Your task to perform on an android device: turn on the 12-hour format for clock Image 0: 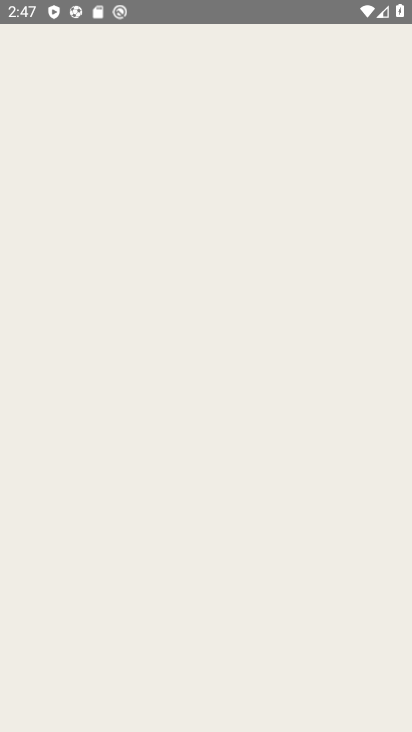
Step 0: click (297, 78)
Your task to perform on an android device: turn on the 12-hour format for clock Image 1: 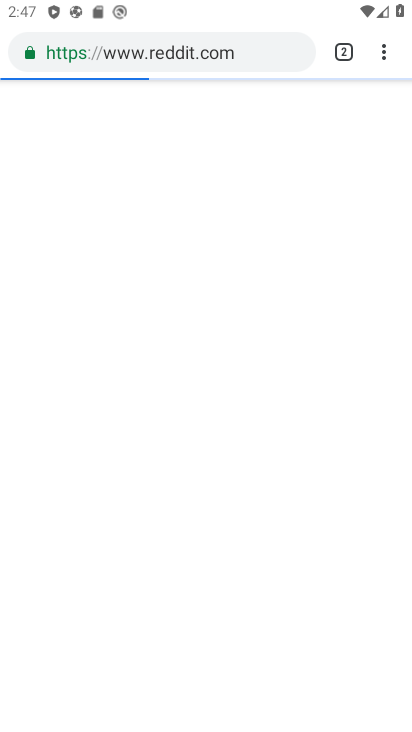
Step 1: press home button
Your task to perform on an android device: turn on the 12-hour format for clock Image 2: 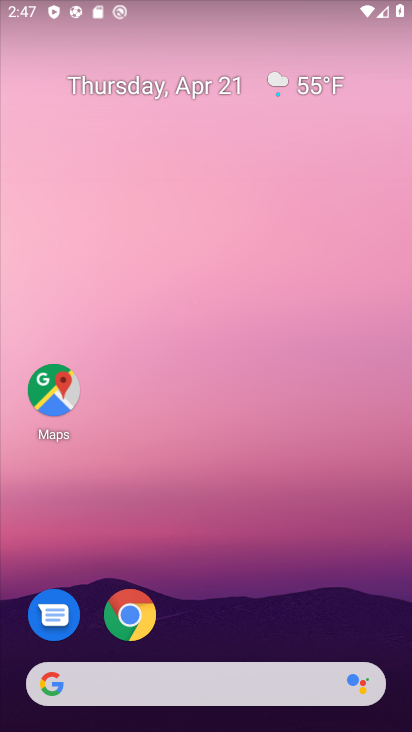
Step 2: drag from (183, 678) to (335, 199)
Your task to perform on an android device: turn on the 12-hour format for clock Image 3: 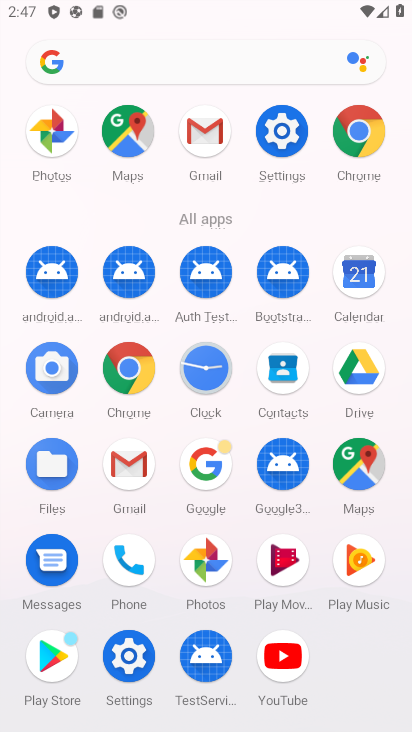
Step 3: click (204, 378)
Your task to perform on an android device: turn on the 12-hour format for clock Image 4: 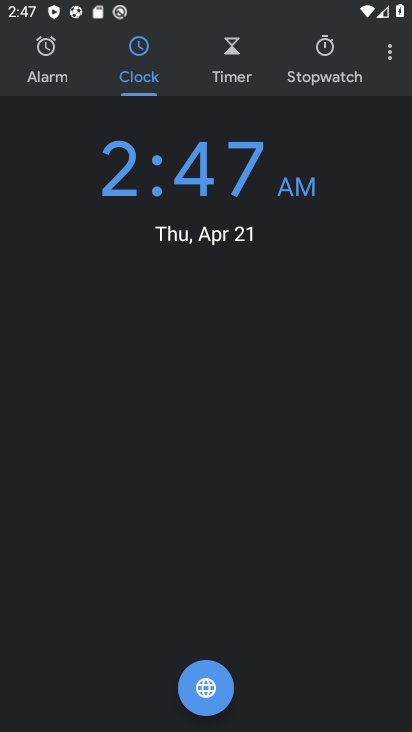
Step 4: click (391, 56)
Your task to perform on an android device: turn on the 12-hour format for clock Image 5: 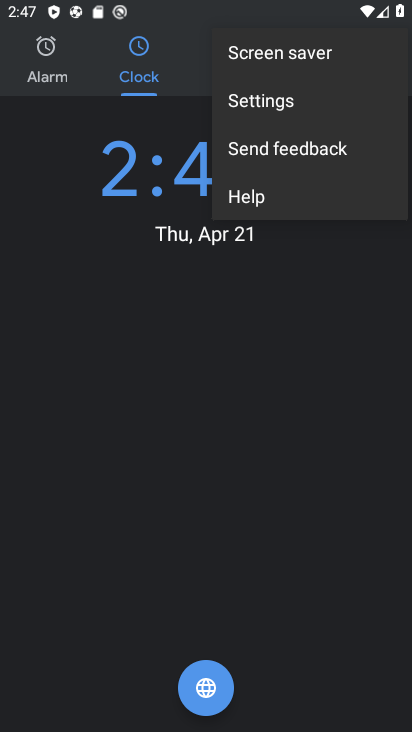
Step 5: click (286, 86)
Your task to perform on an android device: turn on the 12-hour format for clock Image 6: 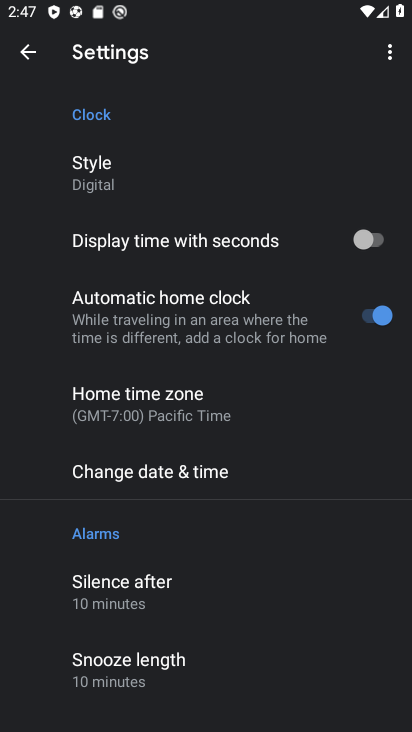
Step 6: click (196, 472)
Your task to perform on an android device: turn on the 12-hour format for clock Image 7: 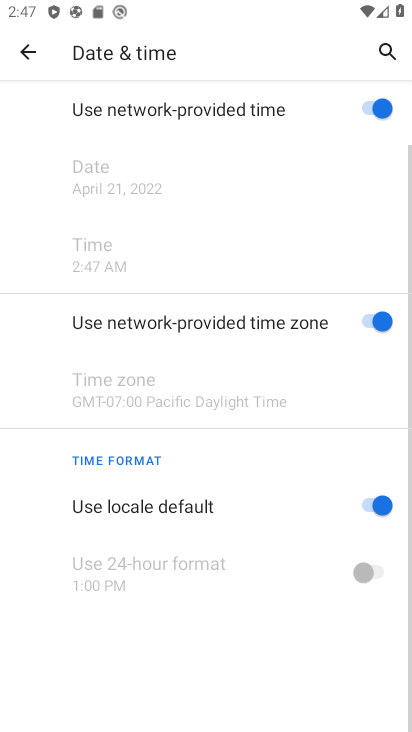
Step 7: task complete